Your task to perform on an android device: Search for sushi restaurants on Maps Image 0: 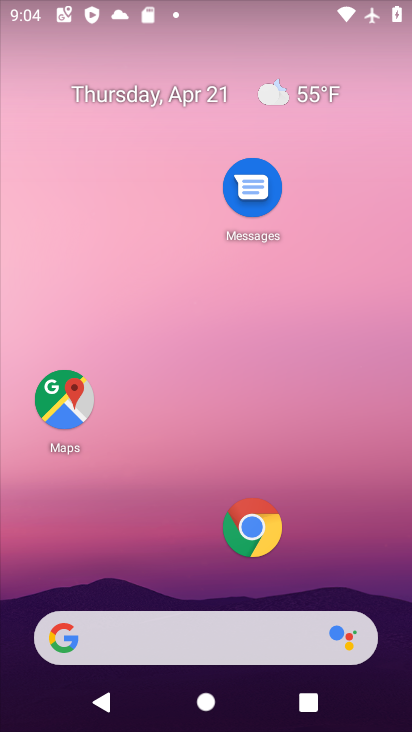
Step 0: drag from (175, 619) to (323, 107)
Your task to perform on an android device: Search for sushi restaurants on Maps Image 1: 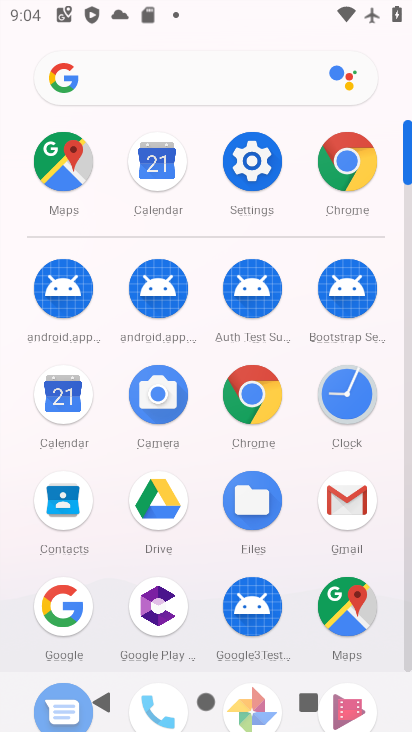
Step 1: click (64, 177)
Your task to perform on an android device: Search for sushi restaurants on Maps Image 2: 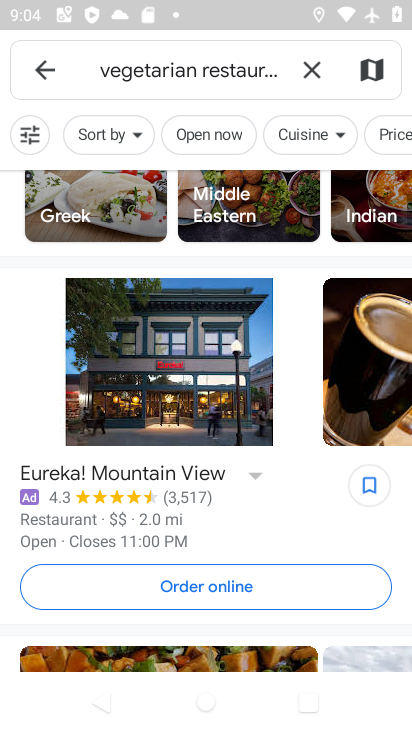
Step 2: click (308, 70)
Your task to perform on an android device: Search for sushi restaurants on Maps Image 3: 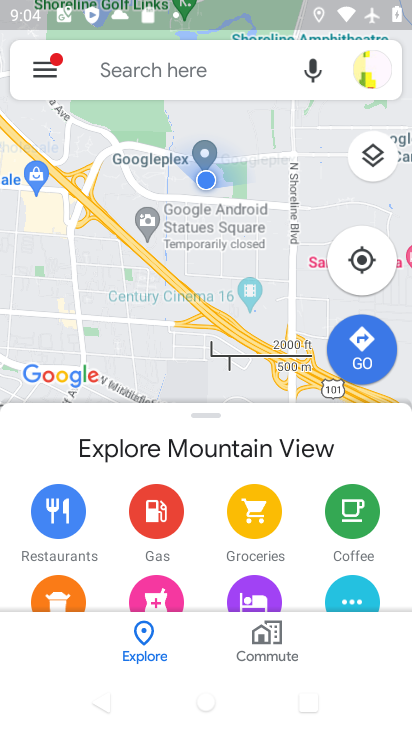
Step 3: click (222, 72)
Your task to perform on an android device: Search for sushi restaurants on Maps Image 4: 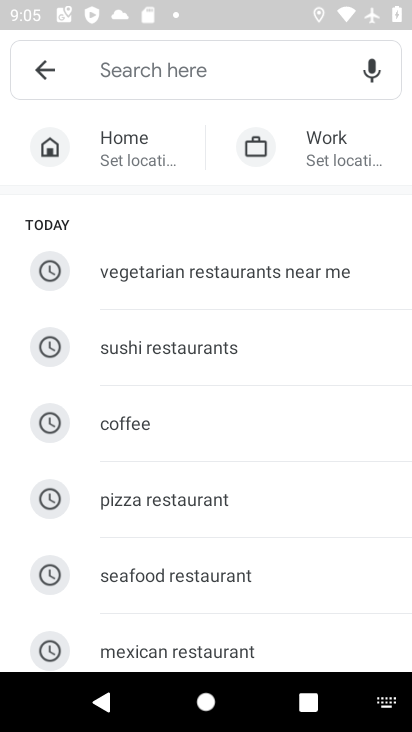
Step 4: click (165, 341)
Your task to perform on an android device: Search for sushi restaurants on Maps Image 5: 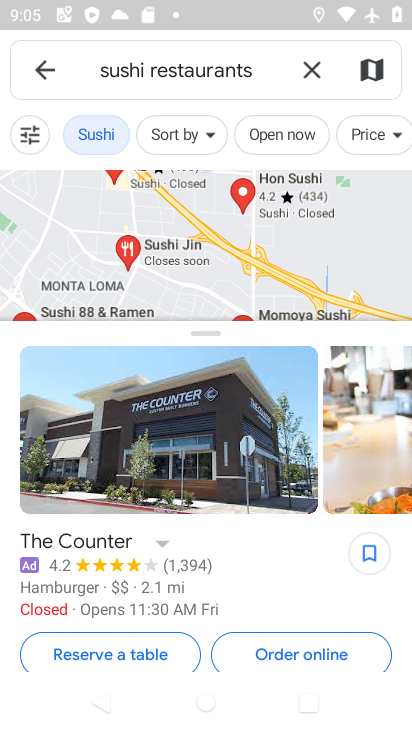
Step 5: task complete